Your task to perform on an android device: turn on wifi Image 0: 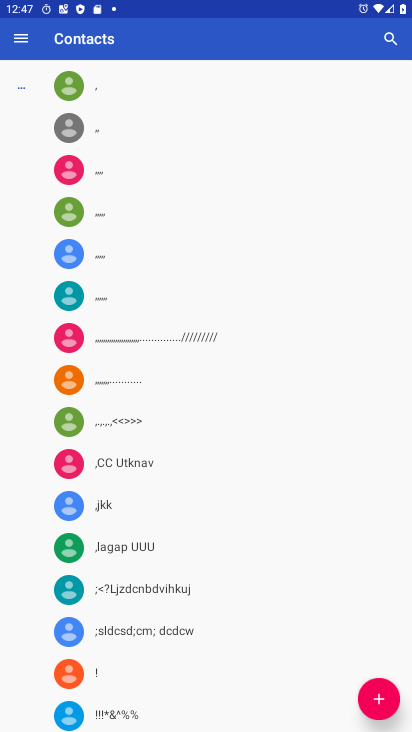
Step 0: press home button
Your task to perform on an android device: turn on wifi Image 1: 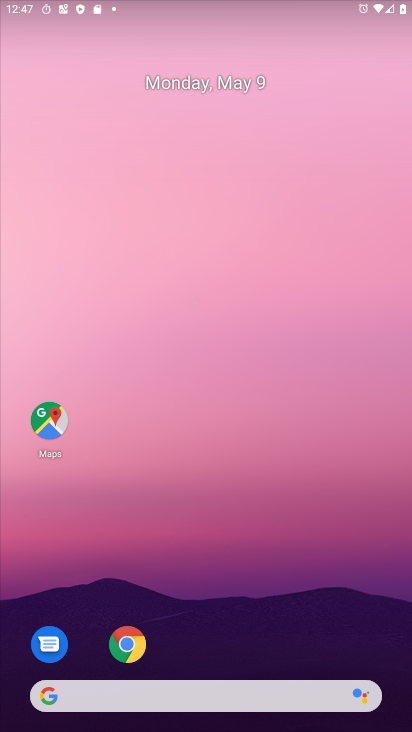
Step 1: drag from (327, 653) to (402, 129)
Your task to perform on an android device: turn on wifi Image 2: 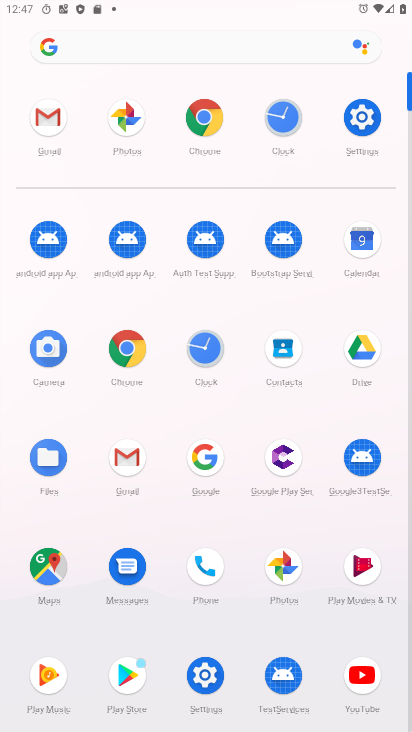
Step 2: click (370, 120)
Your task to perform on an android device: turn on wifi Image 3: 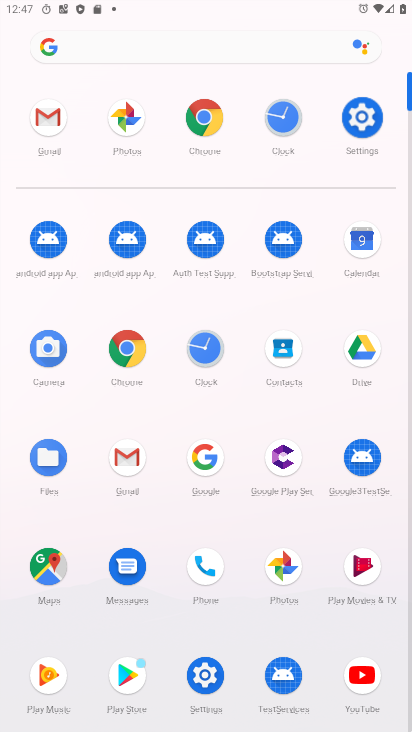
Step 3: click (369, 119)
Your task to perform on an android device: turn on wifi Image 4: 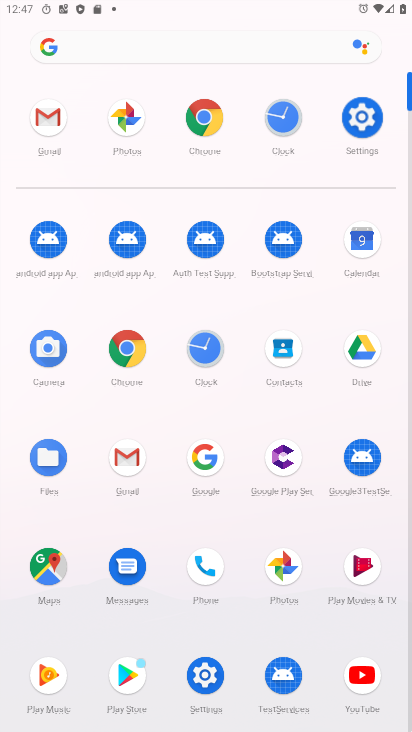
Step 4: click (369, 119)
Your task to perform on an android device: turn on wifi Image 5: 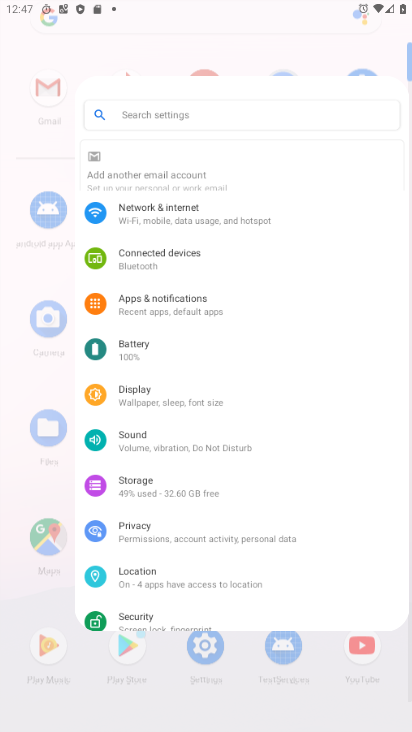
Step 5: click (369, 119)
Your task to perform on an android device: turn on wifi Image 6: 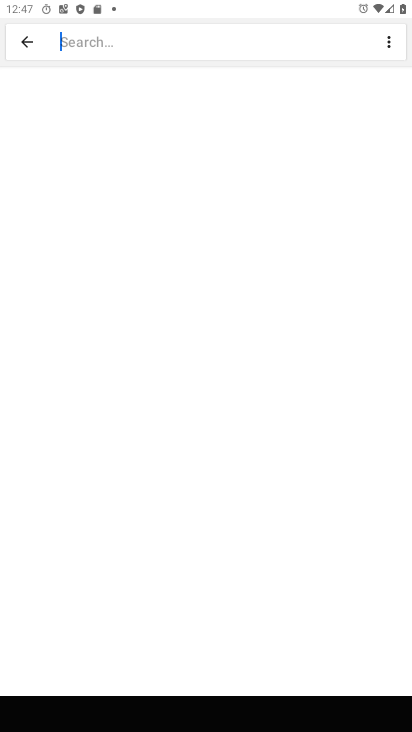
Step 6: click (119, 196)
Your task to perform on an android device: turn on wifi Image 7: 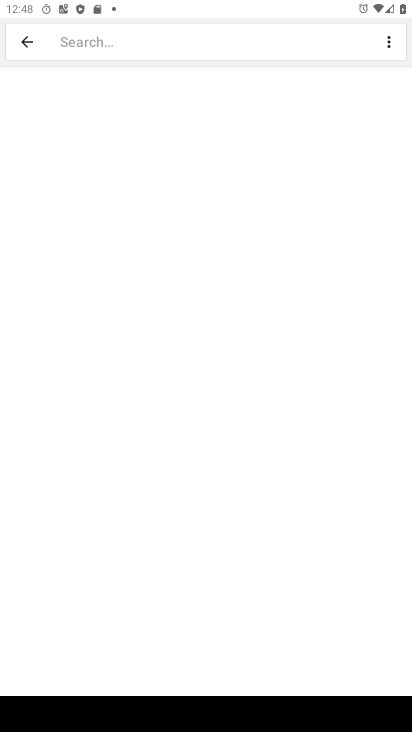
Step 7: click (119, 196)
Your task to perform on an android device: turn on wifi Image 8: 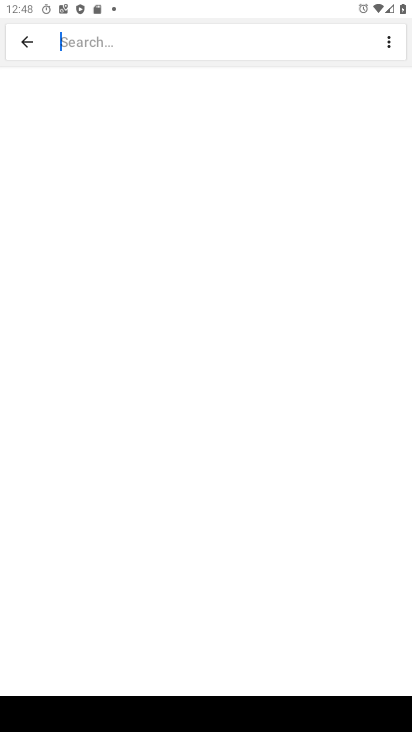
Step 8: click (23, 42)
Your task to perform on an android device: turn on wifi Image 9: 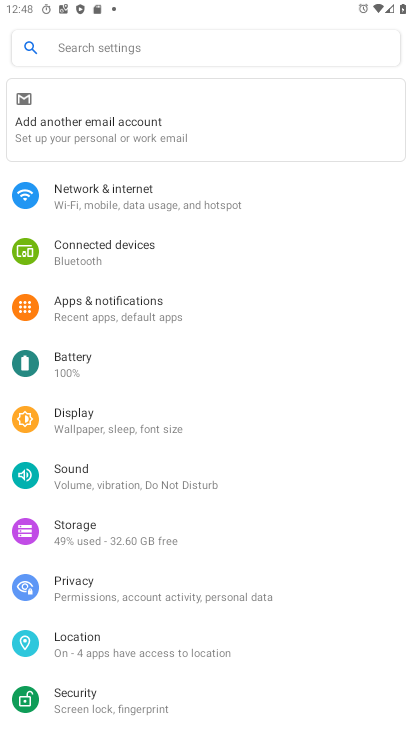
Step 9: click (103, 196)
Your task to perform on an android device: turn on wifi Image 10: 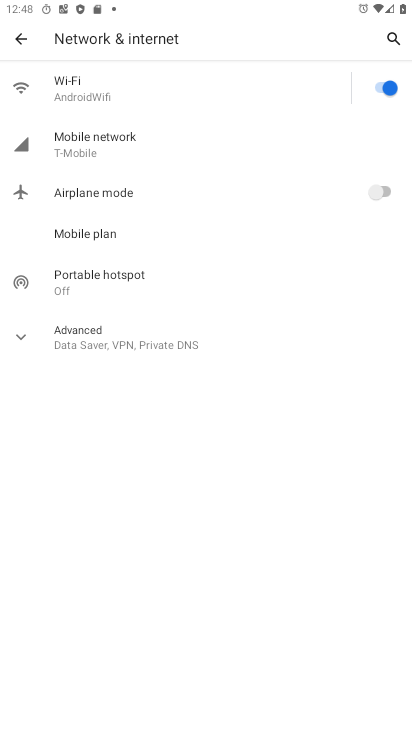
Step 10: task complete